Your task to perform on an android device: Set the phone to "Do not disturb". Image 0: 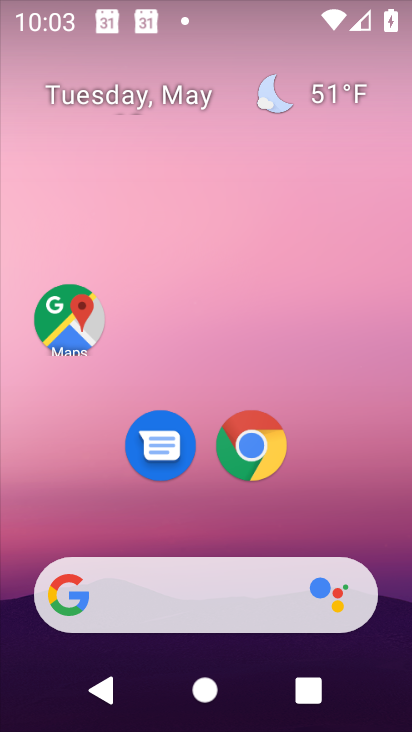
Step 0: drag from (126, 551) to (96, 53)
Your task to perform on an android device: Set the phone to "Do not disturb". Image 1: 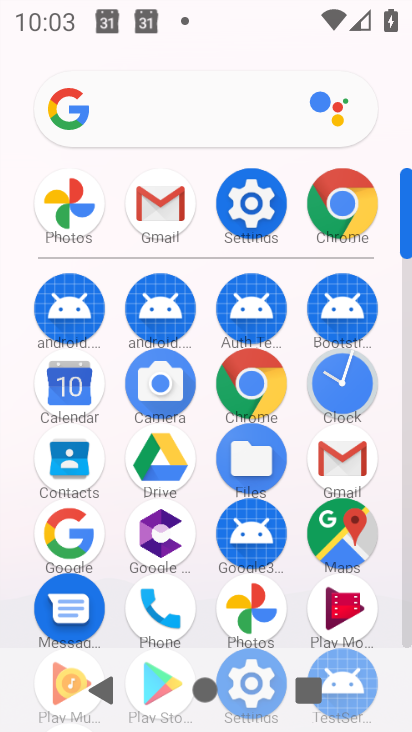
Step 1: click (258, 201)
Your task to perform on an android device: Set the phone to "Do not disturb". Image 2: 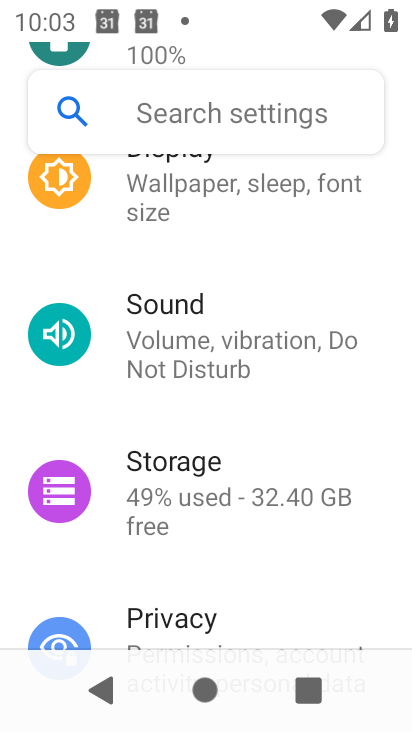
Step 2: click (156, 332)
Your task to perform on an android device: Set the phone to "Do not disturb". Image 3: 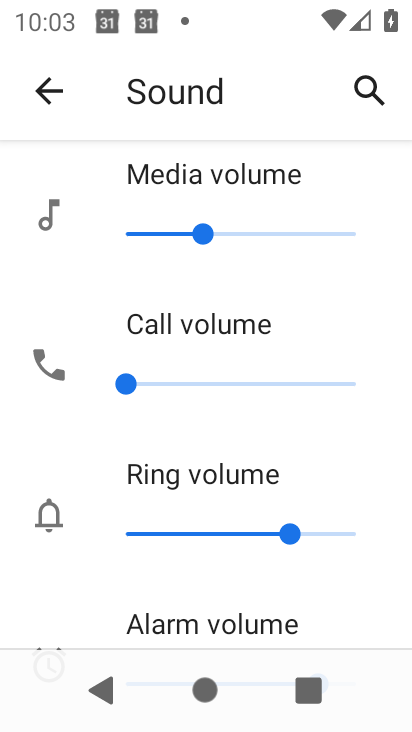
Step 3: drag from (135, 591) to (97, 124)
Your task to perform on an android device: Set the phone to "Do not disturb". Image 4: 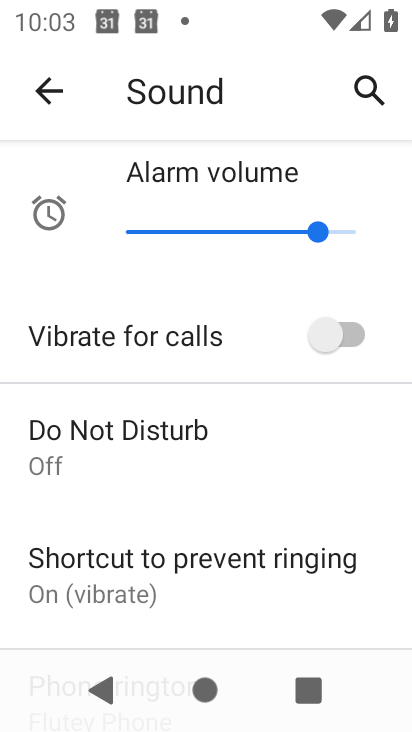
Step 4: click (144, 439)
Your task to perform on an android device: Set the phone to "Do not disturb". Image 5: 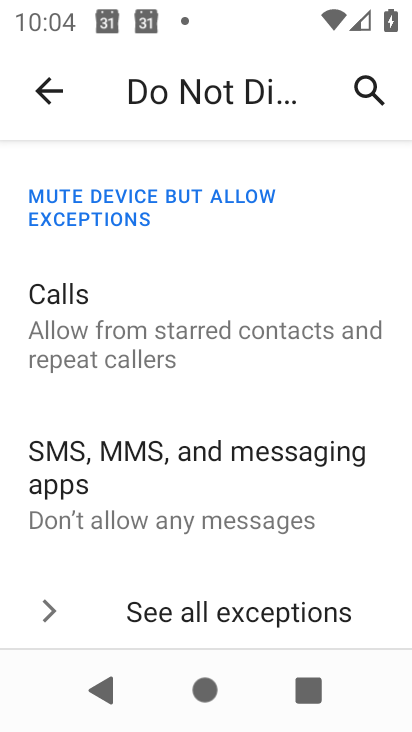
Step 5: drag from (128, 593) to (98, 188)
Your task to perform on an android device: Set the phone to "Do not disturb". Image 6: 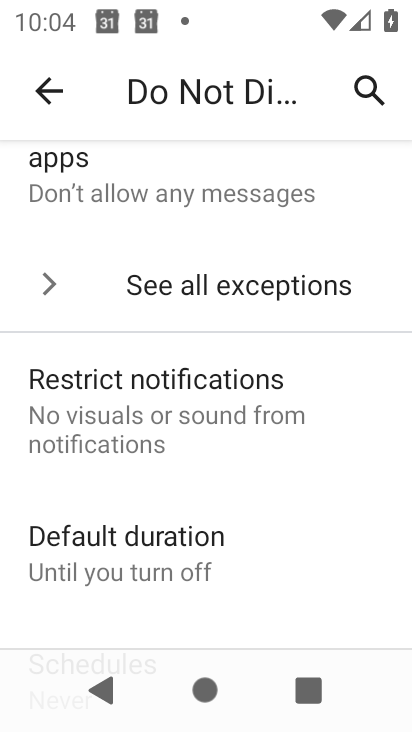
Step 6: drag from (265, 517) to (198, 19)
Your task to perform on an android device: Set the phone to "Do not disturb". Image 7: 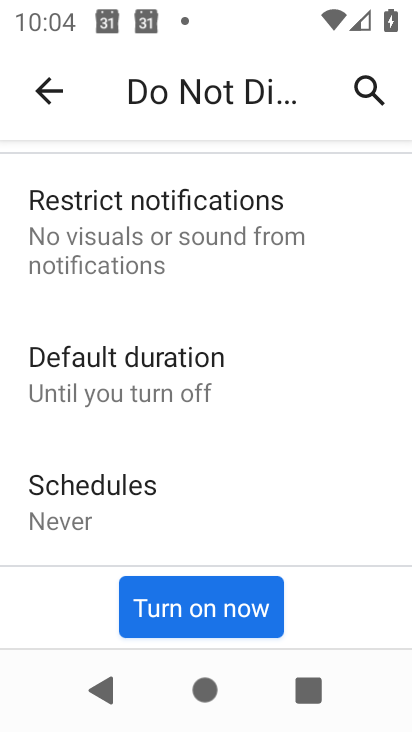
Step 7: click (224, 604)
Your task to perform on an android device: Set the phone to "Do not disturb". Image 8: 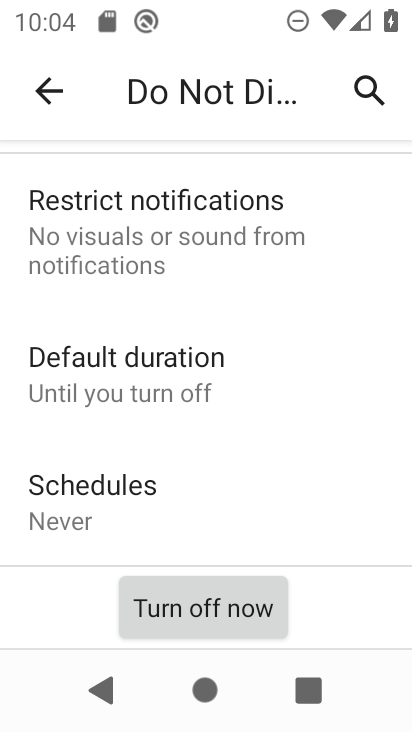
Step 8: task complete